Your task to perform on an android device: add a contact Image 0: 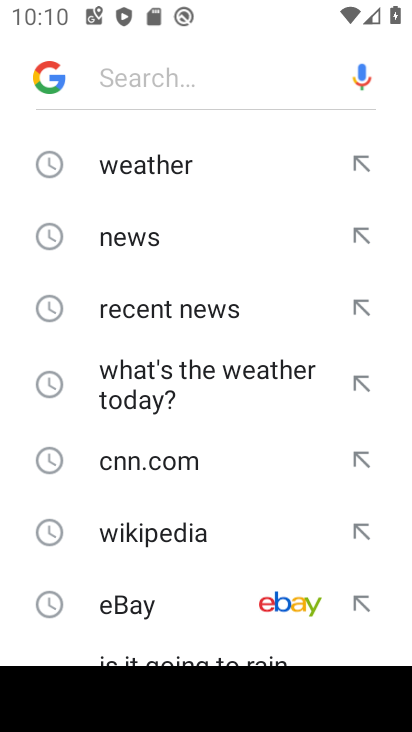
Step 0: press home button
Your task to perform on an android device: add a contact Image 1: 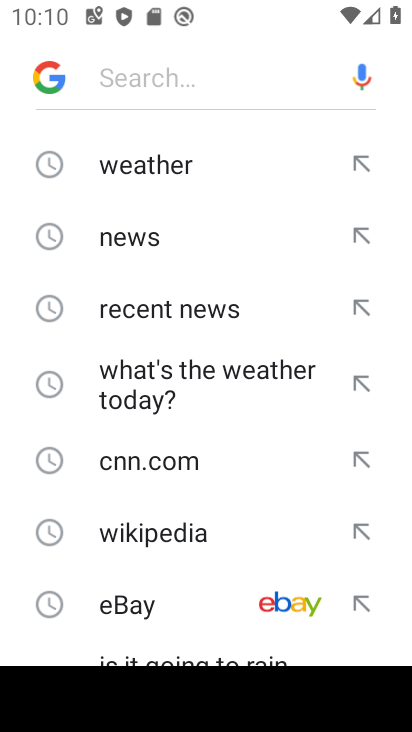
Step 1: press home button
Your task to perform on an android device: add a contact Image 2: 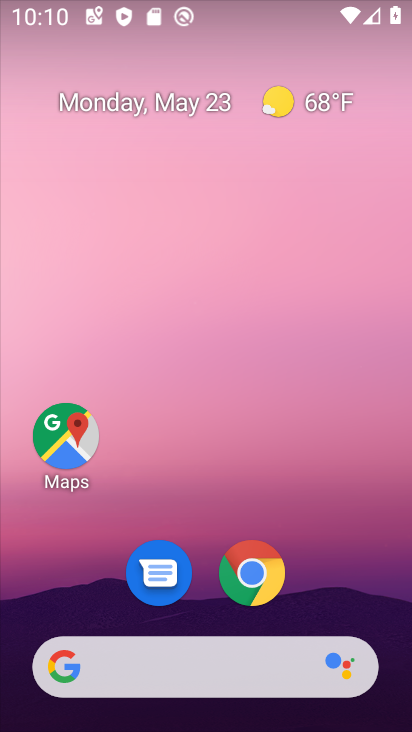
Step 2: drag from (249, 558) to (226, 14)
Your task to perform on an android device: add a contact Image 3: 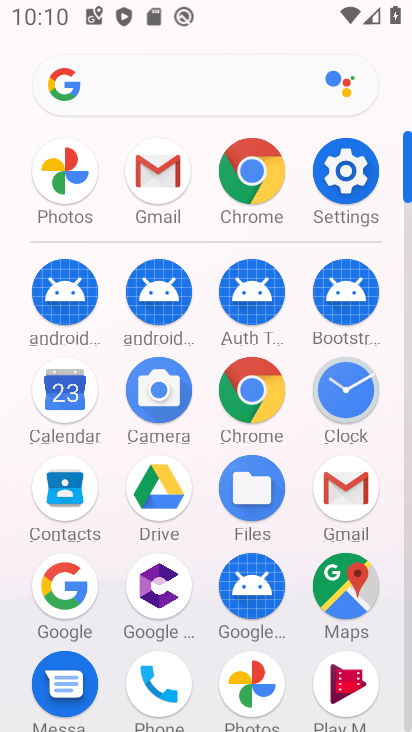
Step 3: click (74, 506)
Your task to perform on an android device: add a contact Image 4: 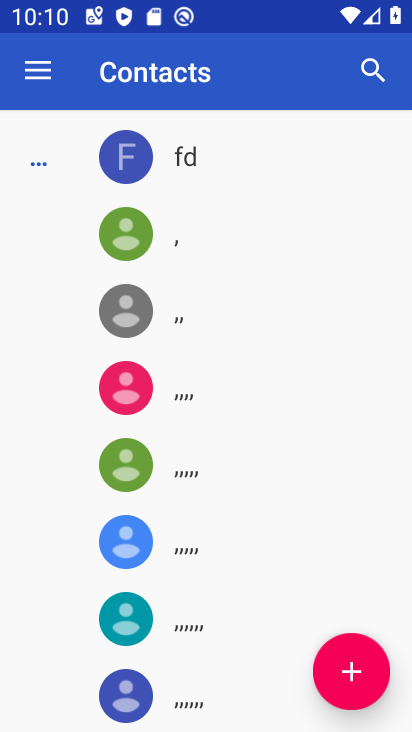
Step 4: click (349, 674)
Your task to perform on an android device: add a contact Image 5: 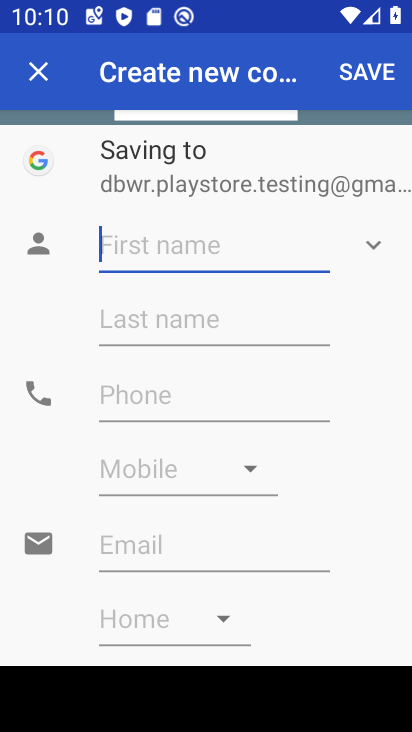
Step 5: type "gkjgkg"
Your task to perform on an android device: add a contact Image 6: 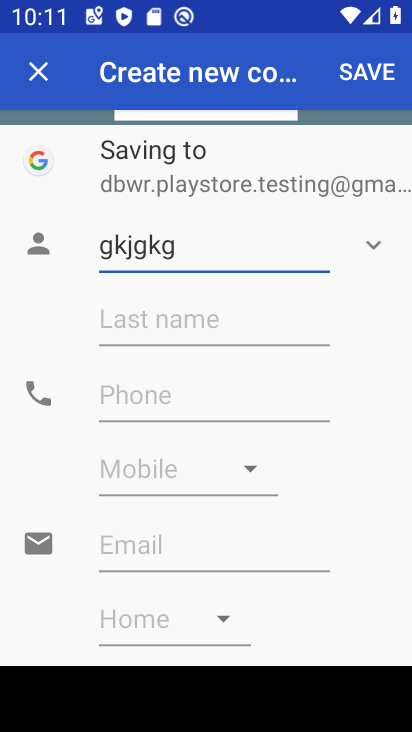
Step 6: click (232, 420)
Your task to perform on an android device: add a contact Image 7: 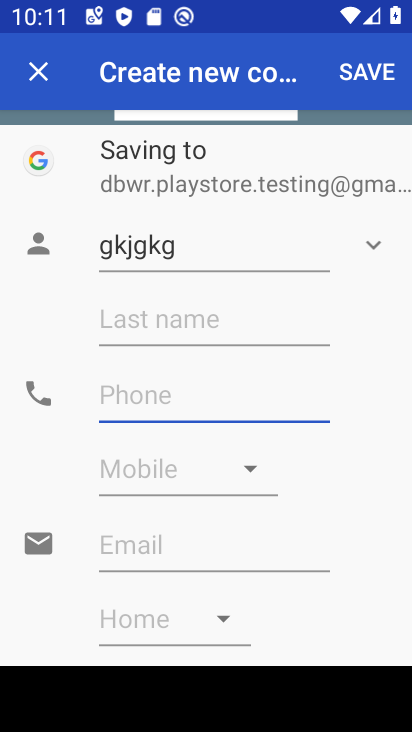
Step 7: type "876874"
Your task to perform on an android device: add a contact Image 8: 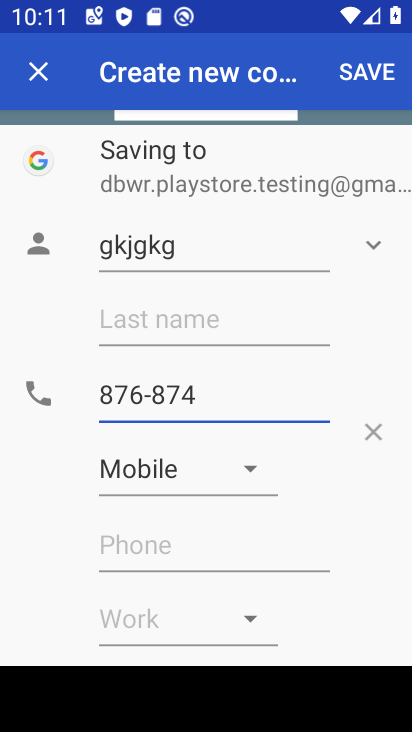
Step 8: click (383, 75)
Your task to perform on an android device: add a contact Image 9: 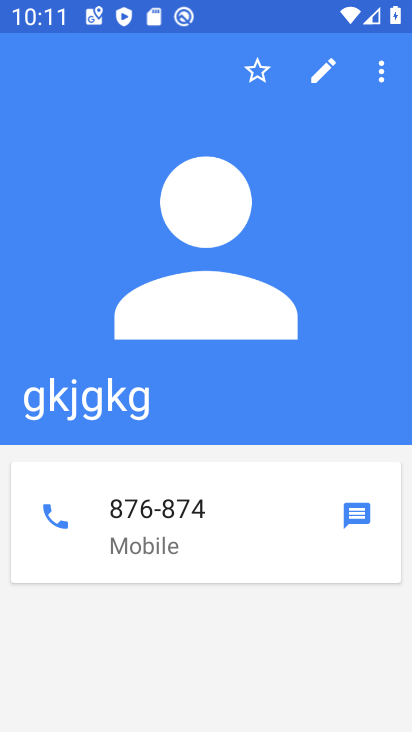
Step 9: task complete